Your task to perform on an android device: Open Google Chrome Image 0: 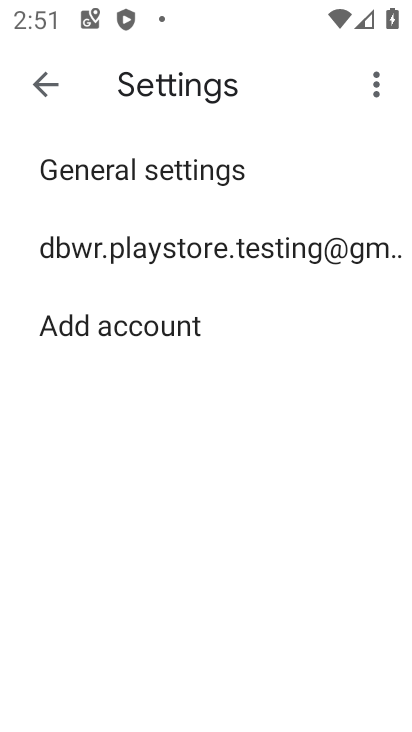
Step 0: press home button
Your task to perform on an android device: Open Google Chrome Image 1: 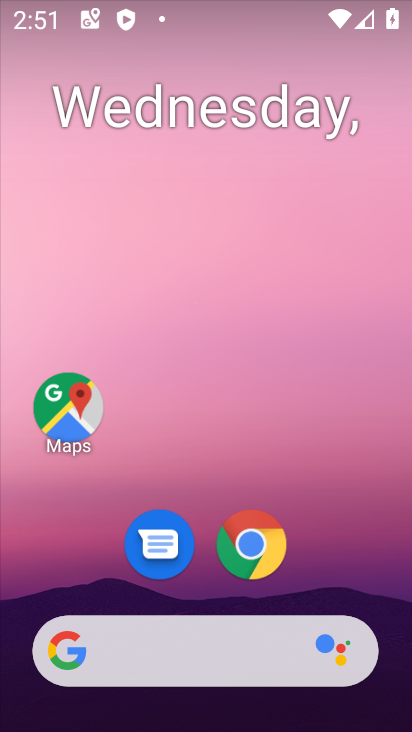
Step 1: drag from (372, 553) to (345, 150)
Your task to perform on an android device: Open Google Chrome Image 2: 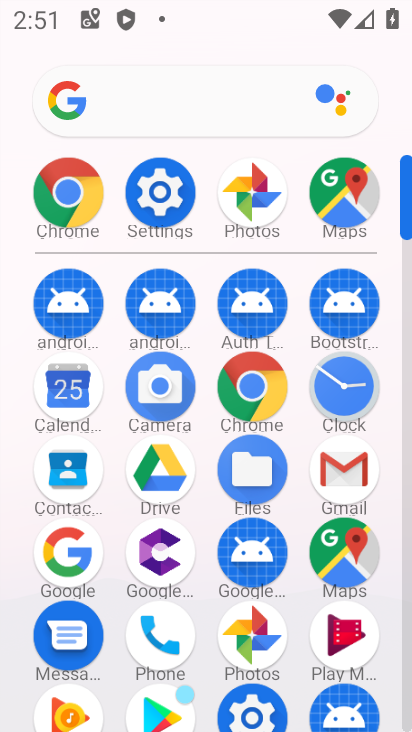
Step 2: click (247, 401)
Your task to perform on an android device: Open Google Chrome Image 3: 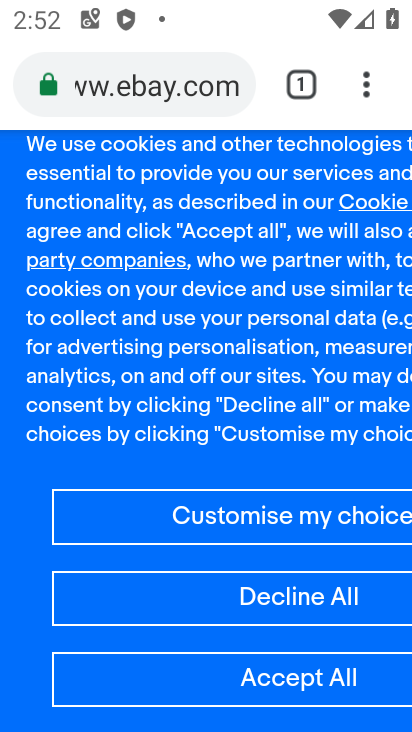
Step 3: task complete